Your task to perform on an android device: turn on the 24-hour format for clock Image 0: 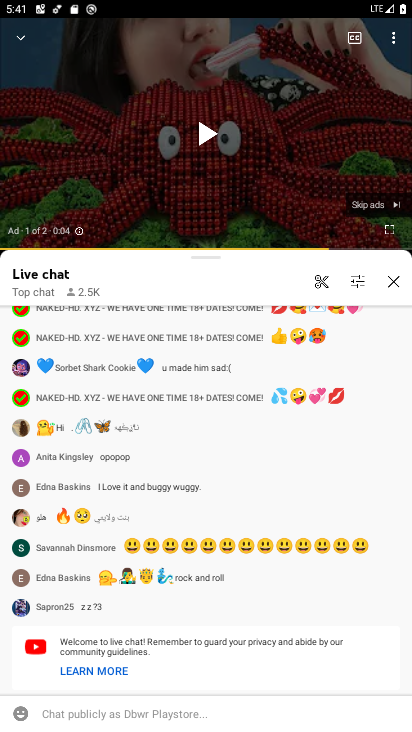
Step 0: press home button
Your task to perform on an android device: turn on the 24-hour format for clock Image 1: 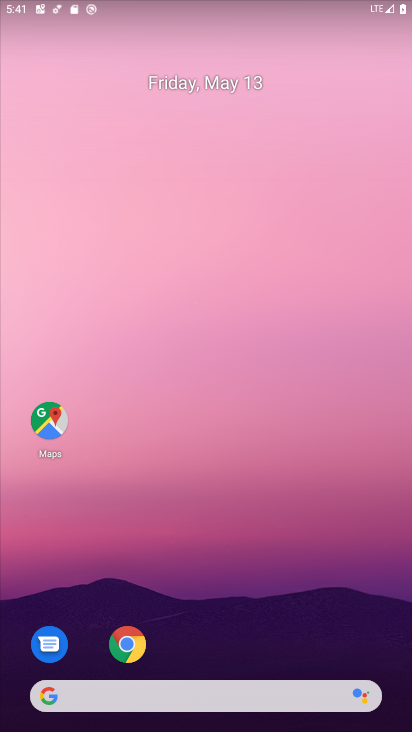
Step 1: drag from (199, 633) to (152, 38)
Your task to perform on an android device: turn on the 24-hour format for clock Image 2: 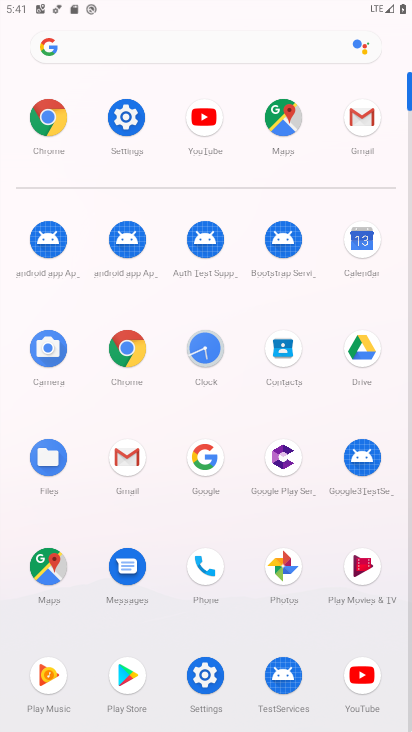
Step 2: click (201, 683)
Your task to perform on an android device: turn on the 24-hour format for clock Image 3: 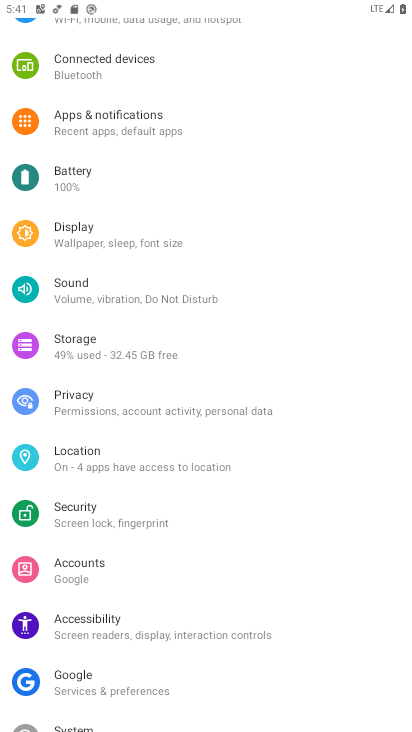
Step 3: drag from (135, 594) to (197, 165)
Your task to perform on an android device: turn on the 24-hour format for clock Image 4: 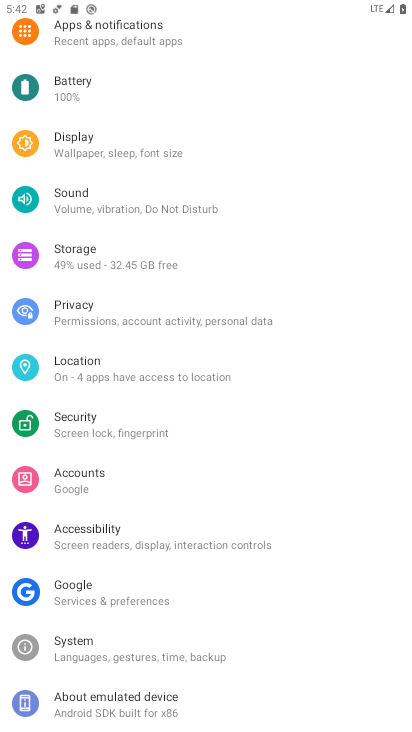
Step 4: click (106, 658)
Your task to perform on an android device: turn on the 24-hour format for clock Image 5: 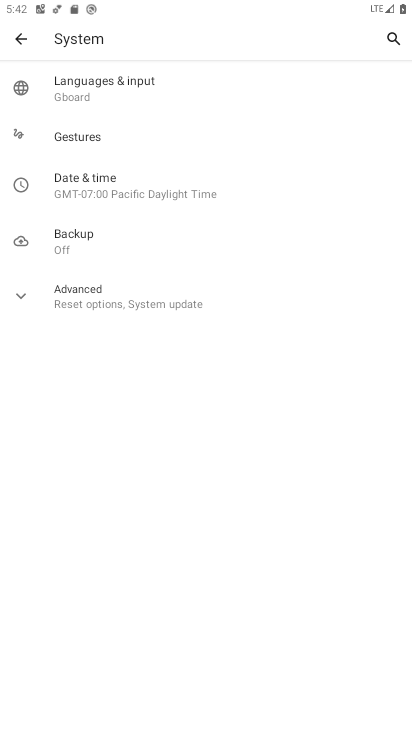
Step 5: click (120, 194)
Your task to perform on an android device: turn on the 24-hour format for clock Image 6: 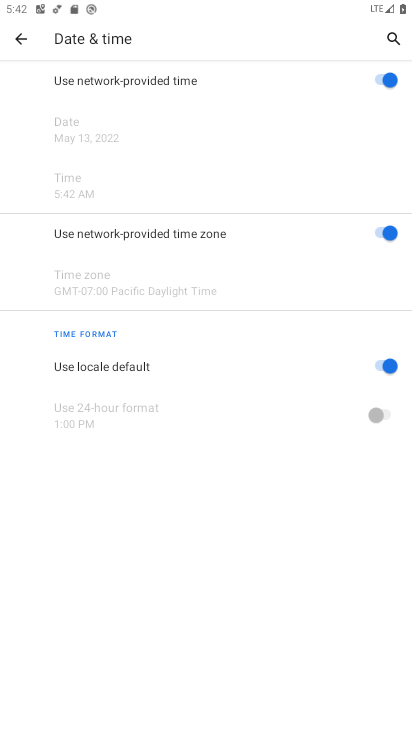
Step 6: click (377, 365)
Your task to perform on an android device: turn on the 24-hour format for clock Image 7: 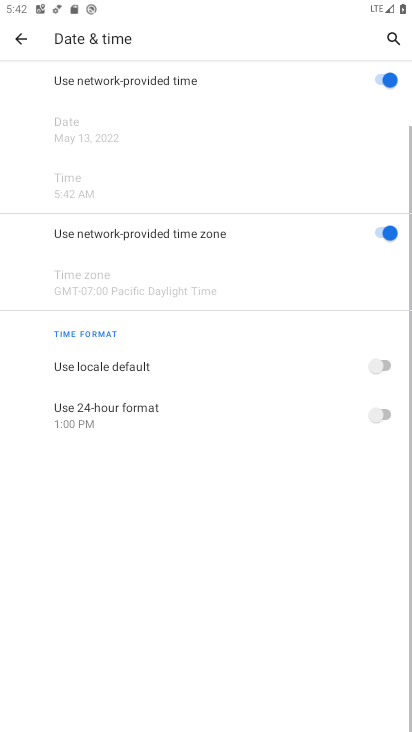
Step 7: click (393, 410)
Your task to perform on an android device: turn on the 24-hour format for clock Image 8: 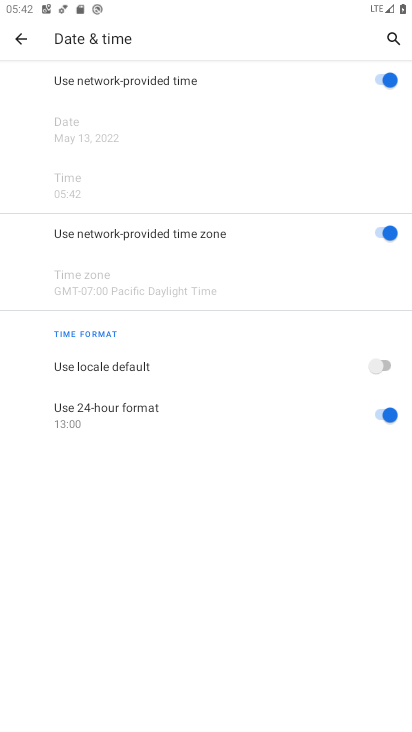
Step 8: task complete